Your task to perform on an android device: Open the stopwatch Image 0: 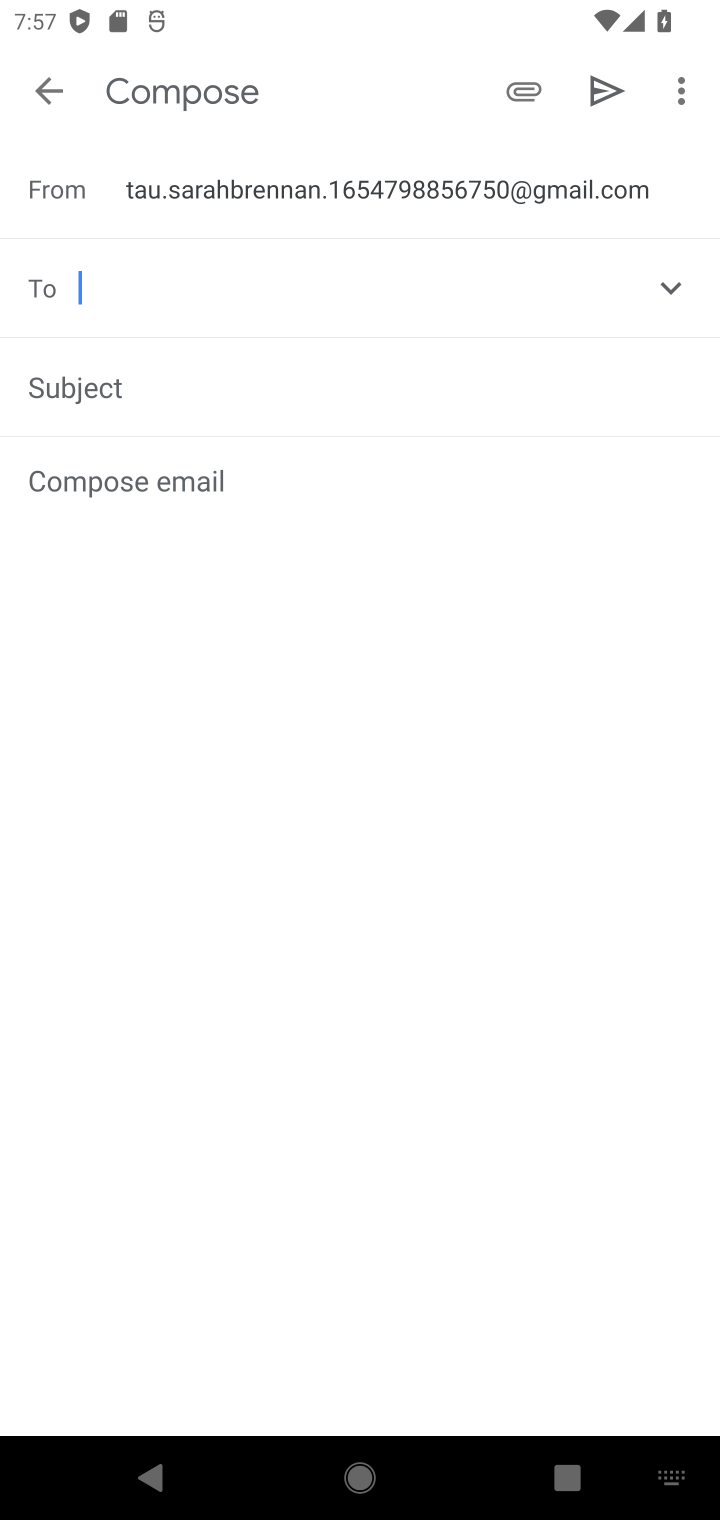
Step 0: press home button
Your task to perform on an android device: Open the stopwatch Image 1: 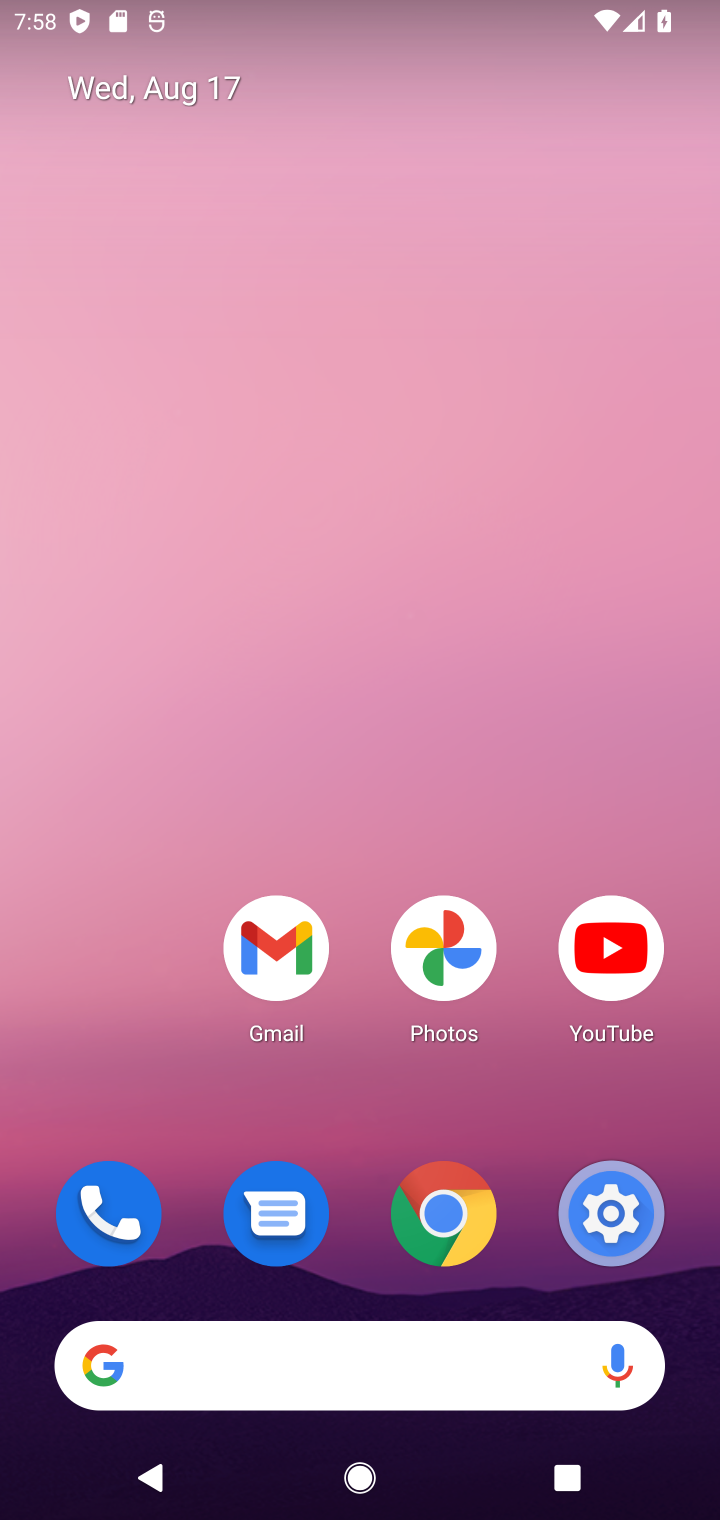
Step 1: drag from (501, 1286) to (431, 4)
Your task to perform on an android device: Open the stopwatch Image 2: 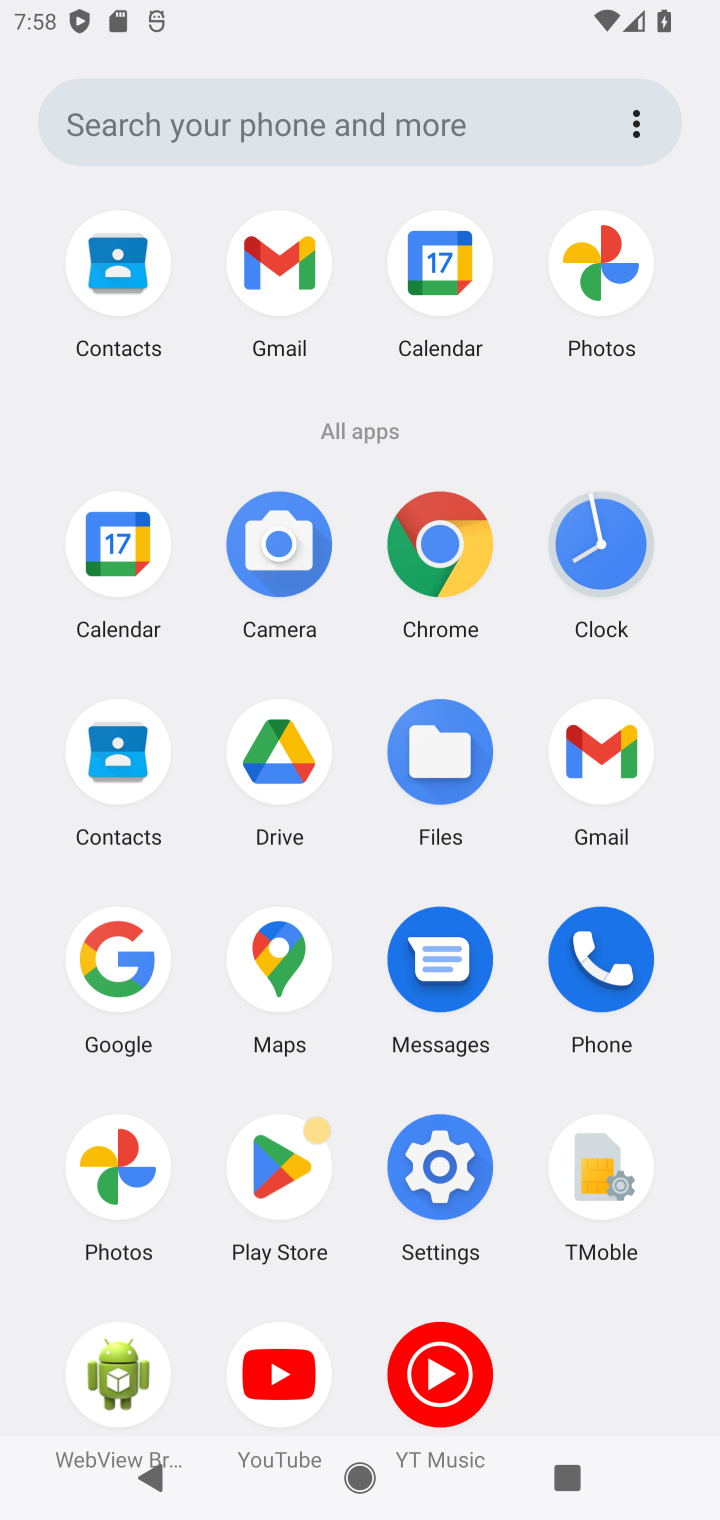
Step 2: click (580, 567)
Your task to perform on an android device: Open the stopwatch Image 3: 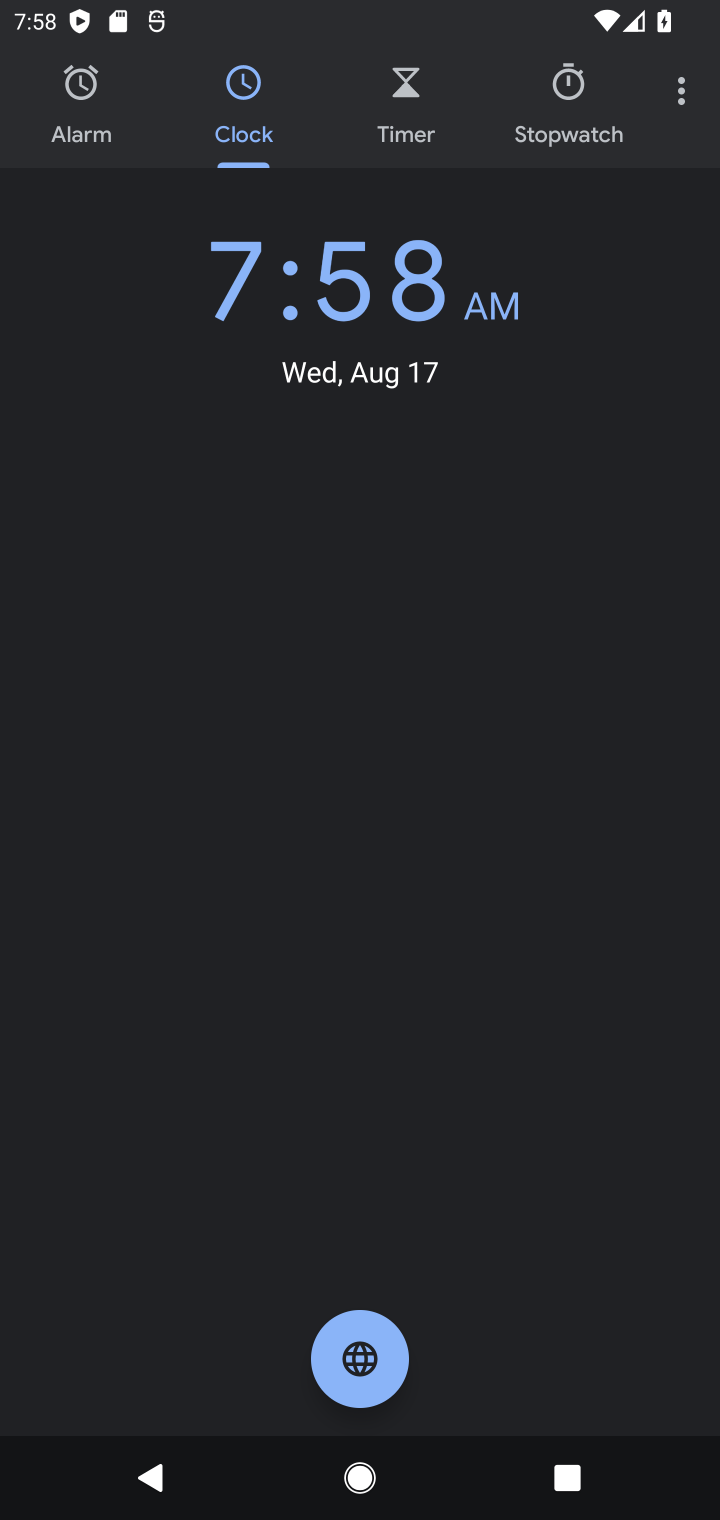
Step 3: click (526, 133)
Your task to perform on an android device: Open the stopwatch Image 4: 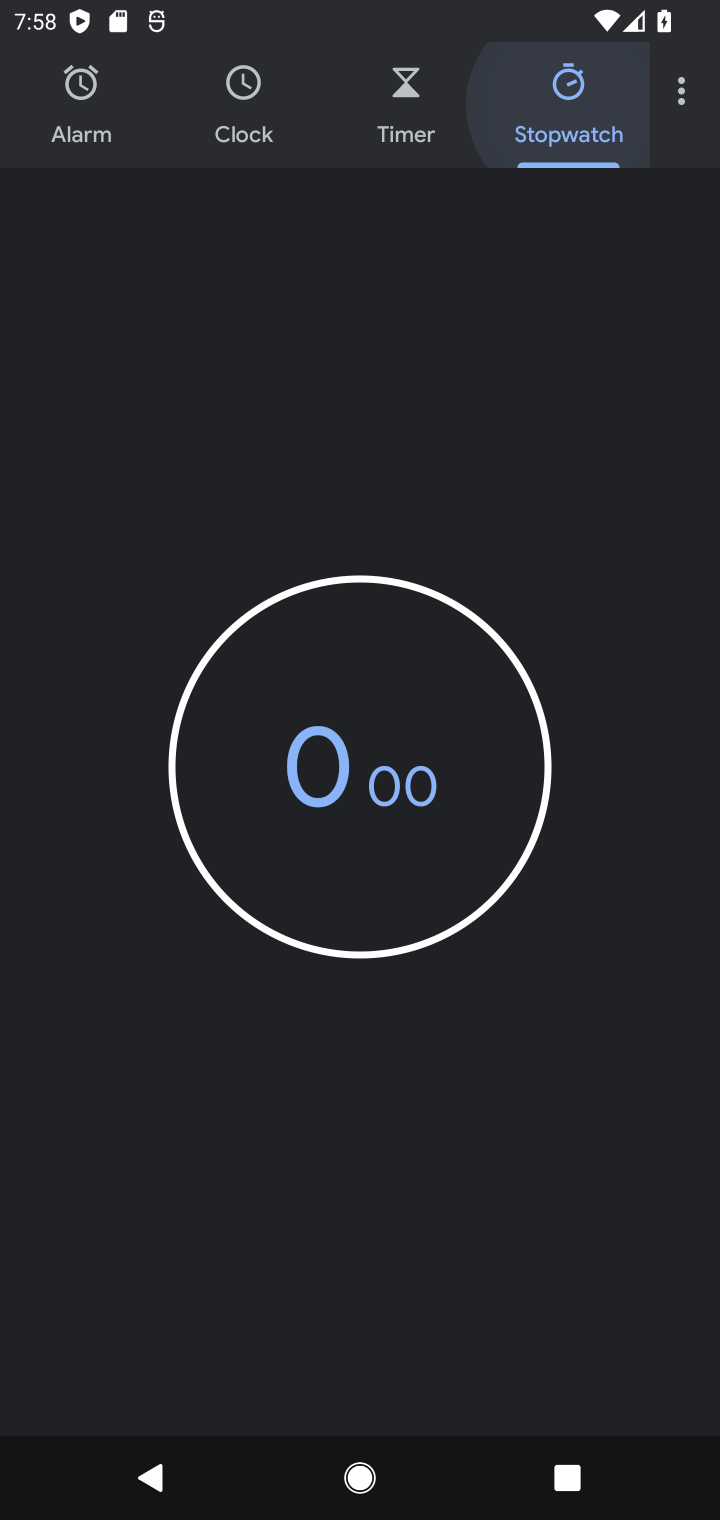
Step 4: task complete